Your task to perform on an android device: Go to calendar. Show me events next week Image 0: 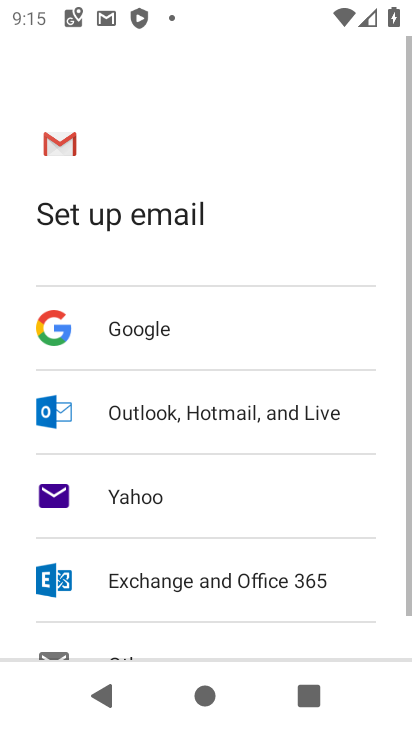
Step 0: press home button
Your task to perform on an android device: Go to calendar. Show me events next week Image 1: 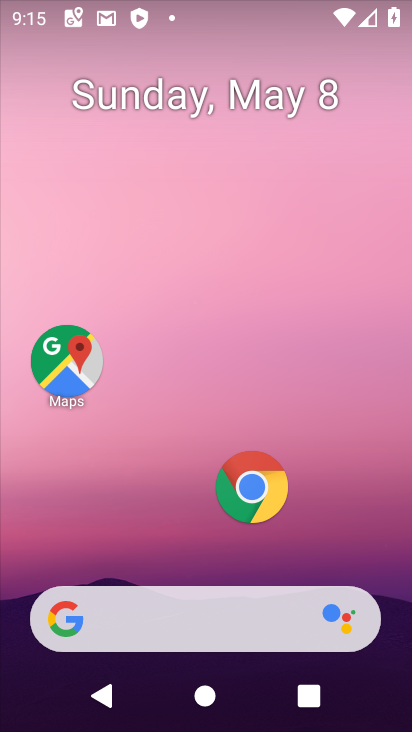
Step 1: drag from (329, 492) to (338, 51)
Your task to perform on an android device: Go to calendar. Show me events next week Image 2: 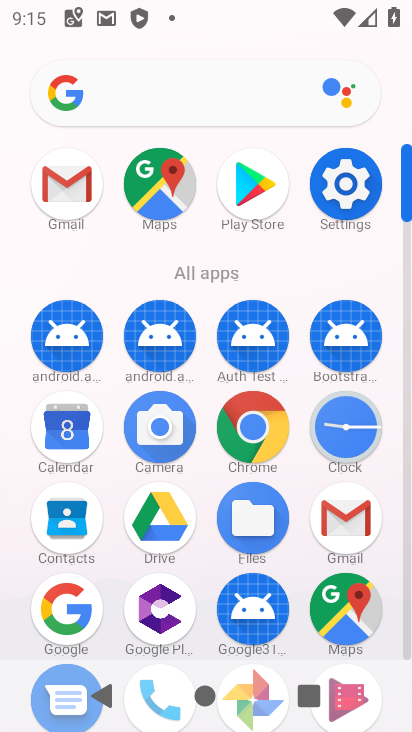
Step 2: click (79, 437)
Your task to perform on an android device: Go to calendar. Show me events next week Image 3: 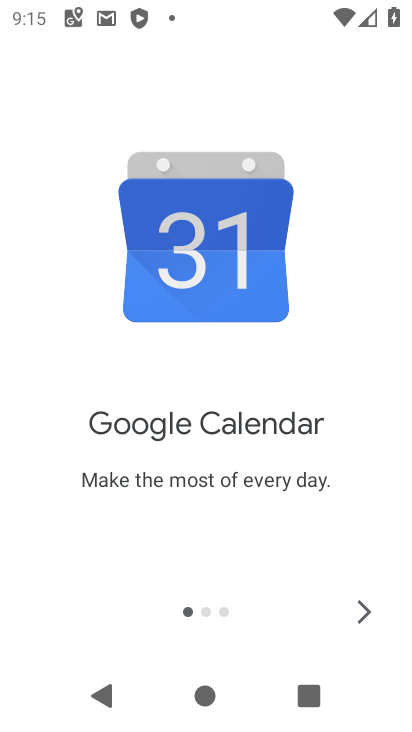
Step 3: click (367, 613)
Your task to perform on an android device: Go to calendar. Show me events next week Image 4: 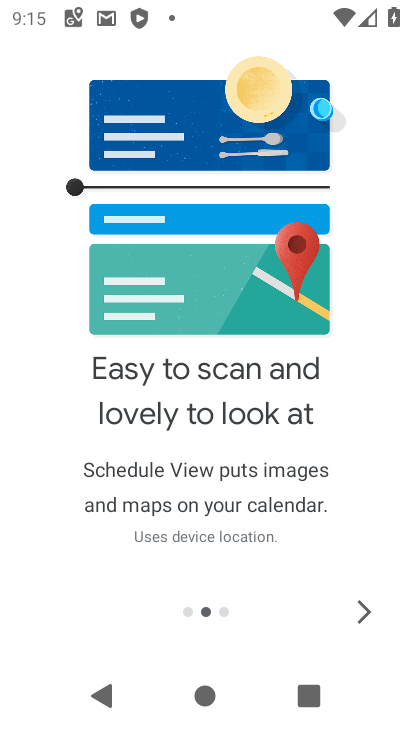
Step 4: click (367, 613)
Your task to perform on an android device: Go to calendar. Show me events next week Image 5: 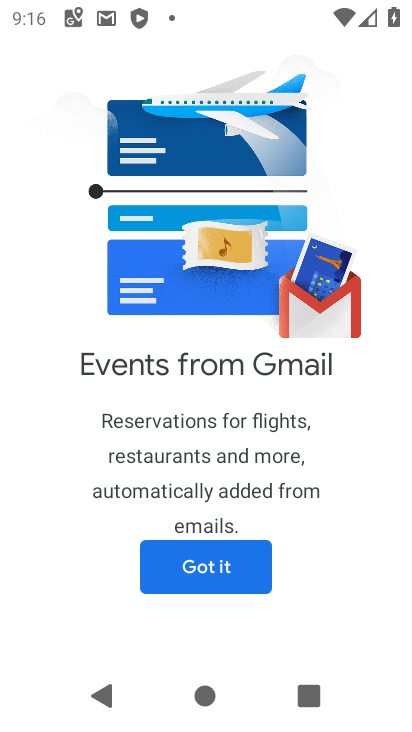
Step 5: click (256, 573)
Your task to perform on an android device: Go to calendar. Show me events next week Image 6: 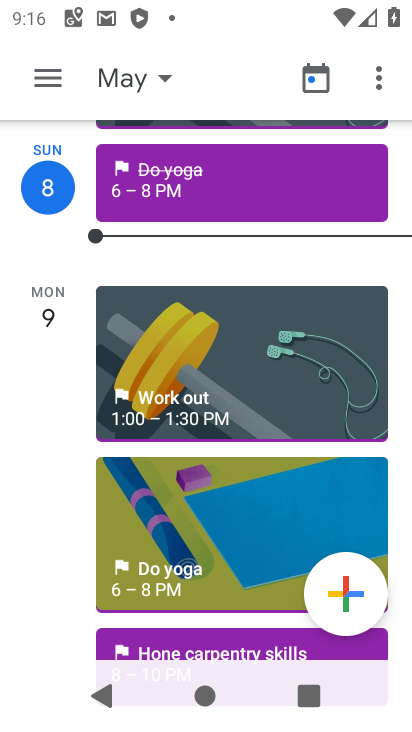
Step 6: click (55, 76)
Your task to perform on an android device: Go to calendar. Show me events next week Image 7: 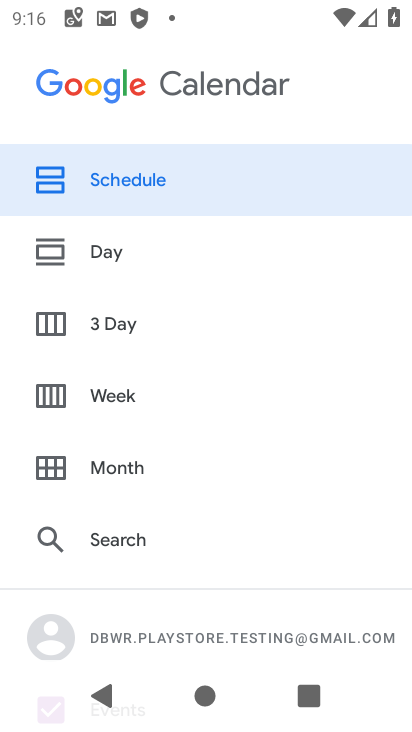
Step 7: click (60, 390)
Your task to perform on an android device: Go to calendar. Show me events next week Image 8: 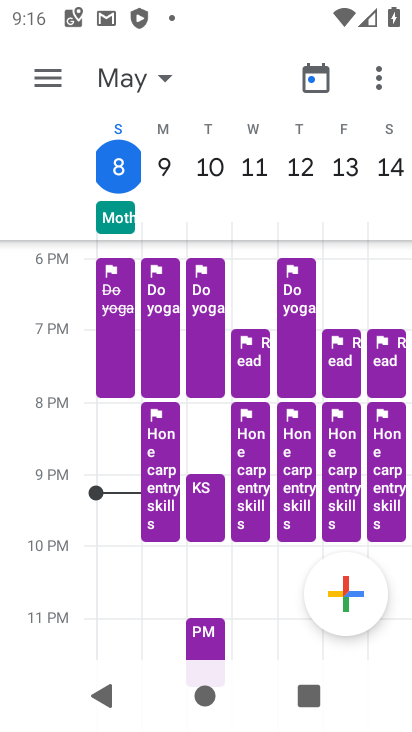
Step 8: click (167, 157)
Your task to perform on an android device: Go to calendar. Show me events next week Image 9: 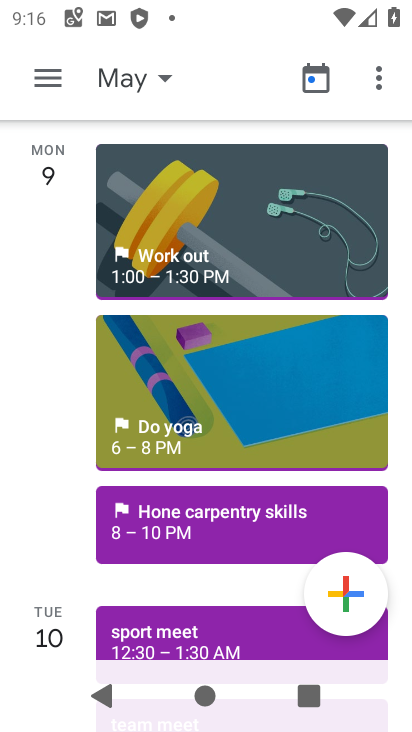
Step 9: click (46, 64)
Your task to perform on an android device: Go to calendar. Show me events next week Image 10: 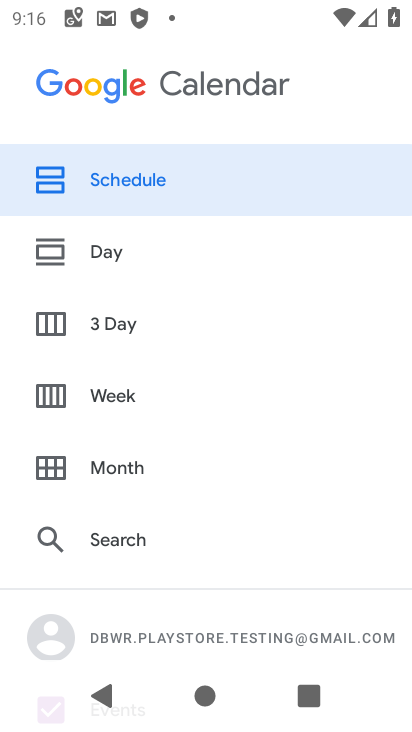
Step 10: click (43, 386)
Your task to perform on an android device: Go to calendar. Show me events next week Image 11: 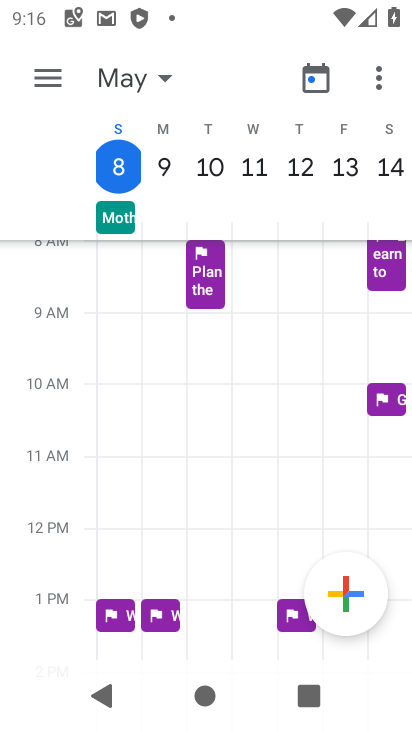
Step 11: task complete